Your task to perform on an android device: set an alarm Image 0: 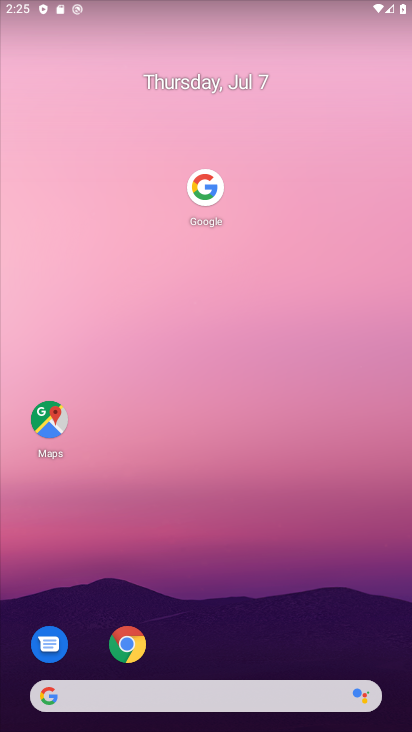
Step 0: drag from (225, 680) to (381, 129)
Your task to perform on an android device: set an alarm Image 1: 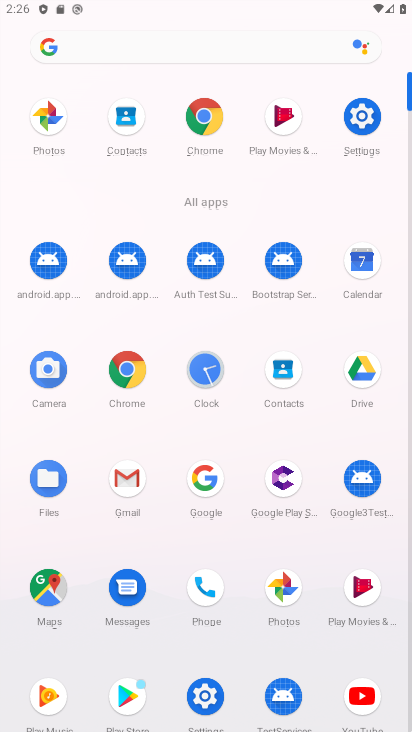
Step 1: click (215, 374)
Your task to perform on an android device: set an alarm Image 2: 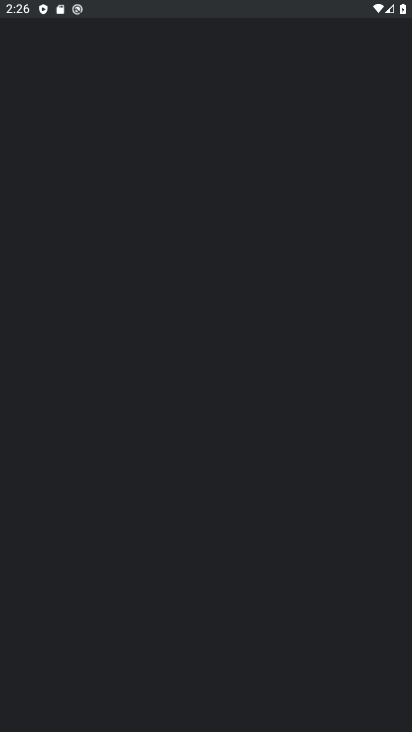
Step 2: click (204, 375)
Your task to perform on an android device: set an alarm Image 3: 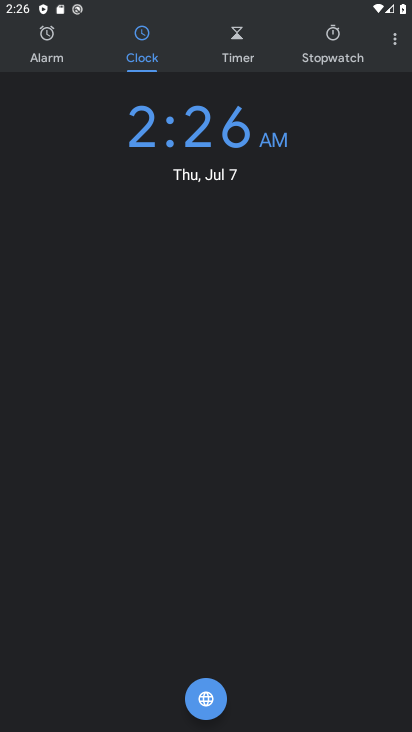
Step 3: click (60, 60)
Your task to perform on an android device: set an alarm Image 4: 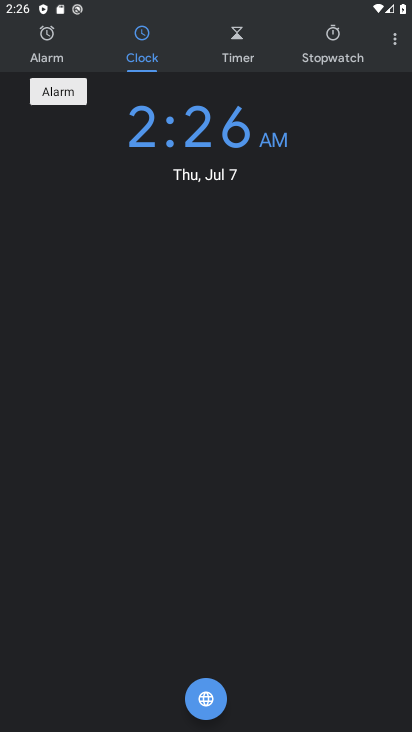
Step 4: click (51, 47)
Your task to perform on an android device: set an alarm Image 5: 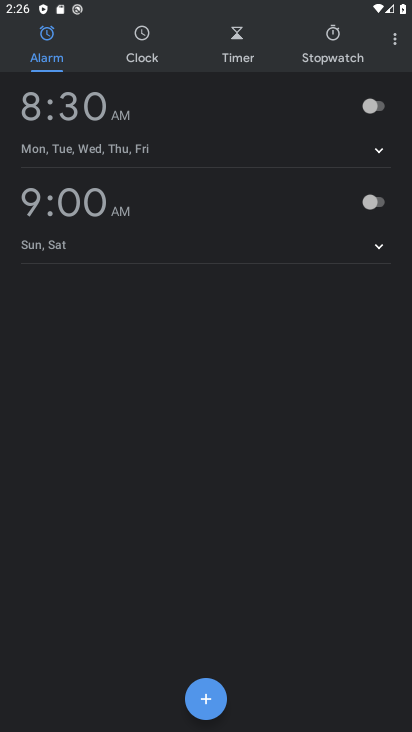
Step 5: click (378, 106)
Your task to perform on an android device: set an alarm Image 6: 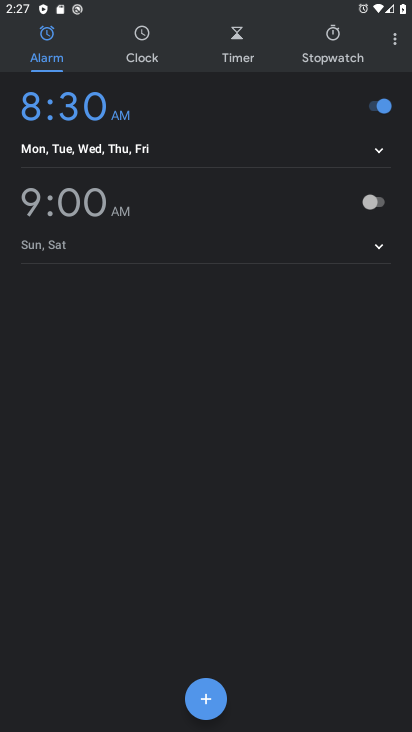
Step 6: task complete